Your task to perform on an android device: Go to settings Image 0: 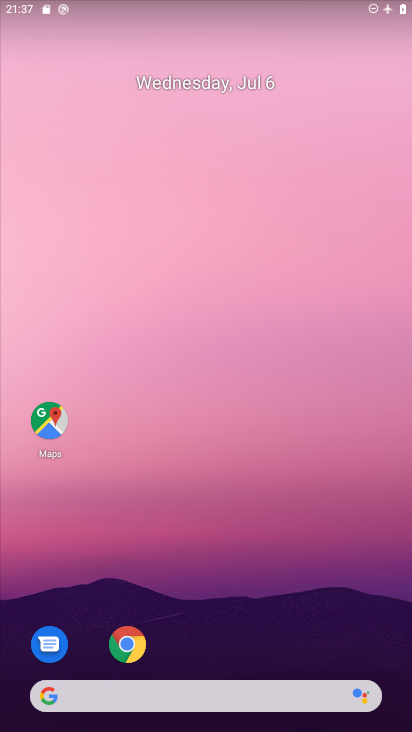
Step 0: drag from (208, 632) to (177, 192)
Your task to perform on an android device: Go to settings Image 1: 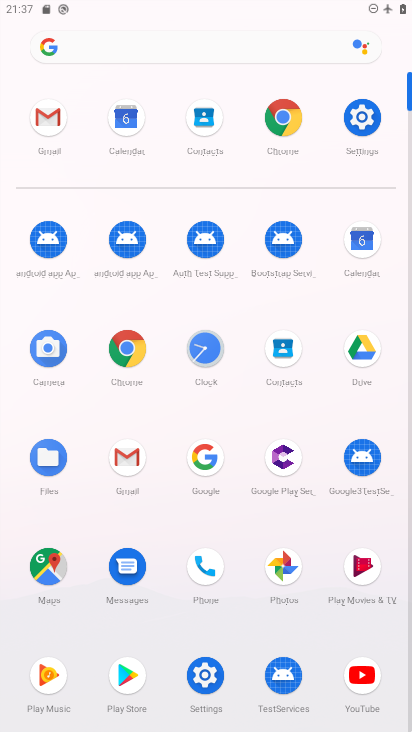
Step 1: click (351, 120)
Your task to perform on an android device: Go to settings Image 2: 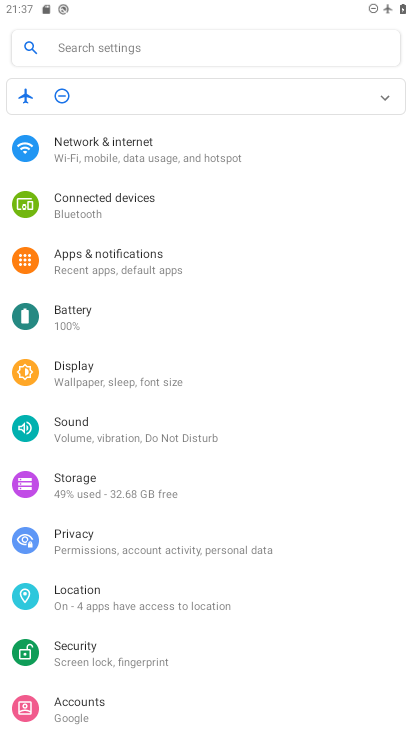
Step 2: task complete